Your task to perform on an android device: What's the weather going to be this weekend? Image 0: 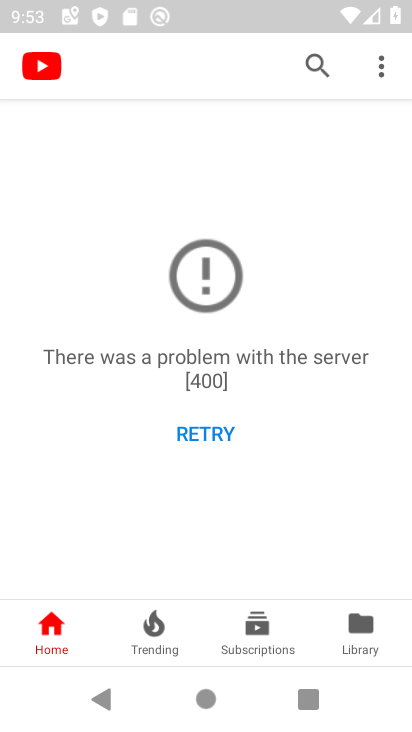
Step 0: press home button
Your task to perform on an android device: What's the weather going to be this weekend? Image 1: 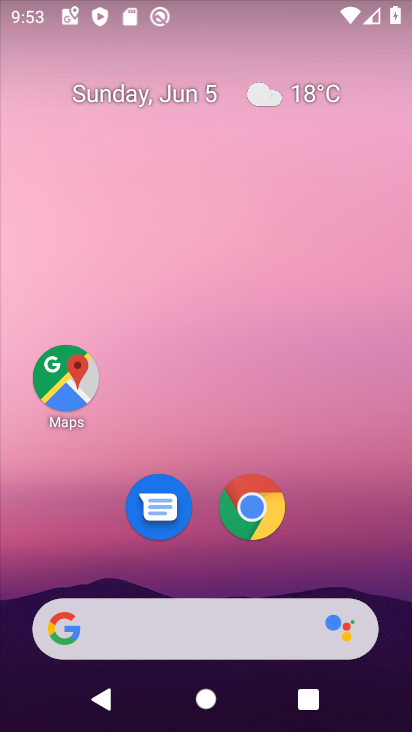
Step 1: click (285, 98)
Your task to perform on an android device: What's the weather going to be this weekend? Image 2: 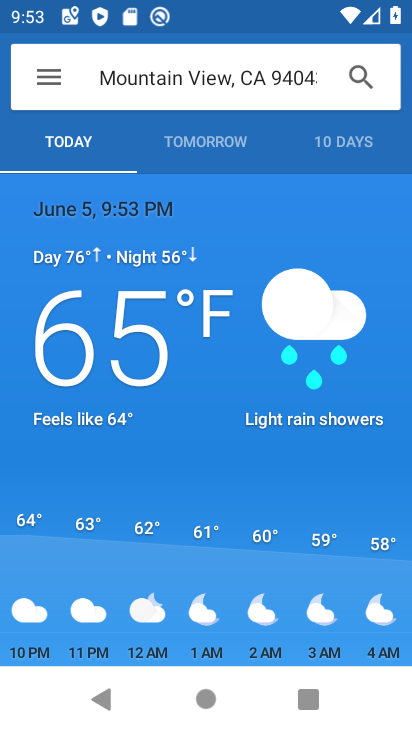
Step 2: click (359, 143)
Your task to perform on an android device: What's the weather going to be this weekend? Image 3: 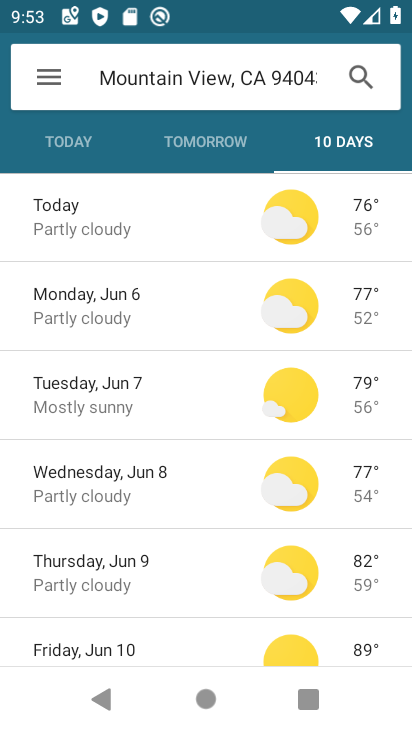
Step 3: task complete